Your task to perform on an android device: Open the web browser Image 0: 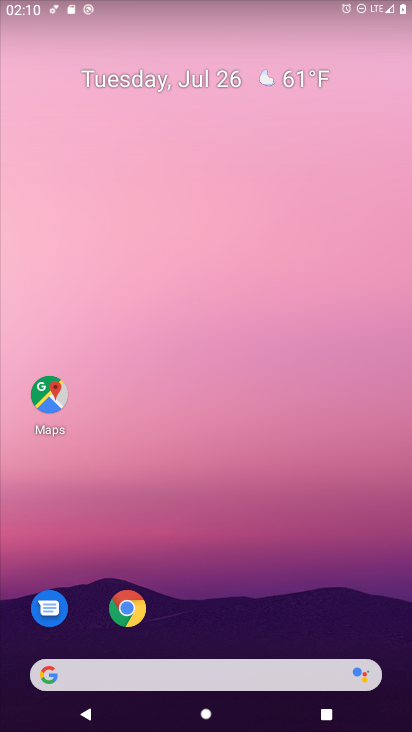
Step 0: drag from (34, 636) to (305, 134)
Your task to perform on an android device: Open the web browser Image 1: 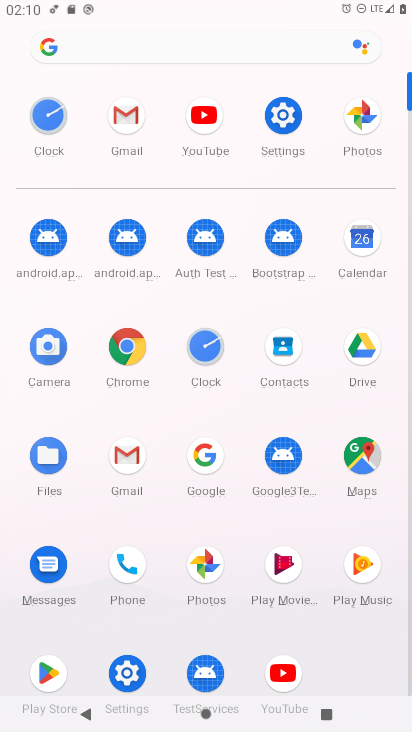
Step 1: click (128, 352)
Your task to perform on an android device: Open the web browser Image 2: 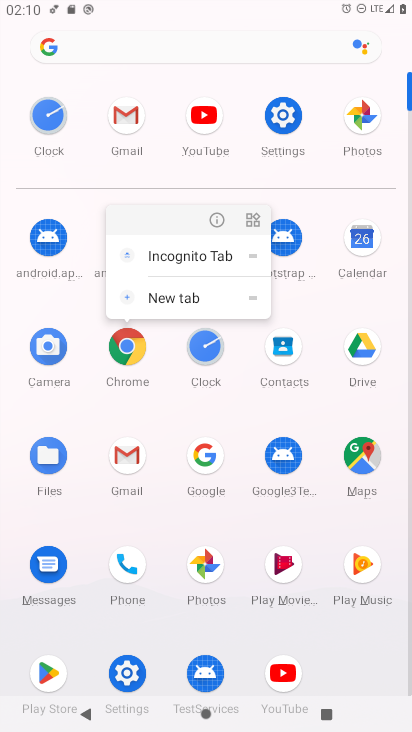
Step 2: click (128, 350)
Your task to perform on an android device: Open the web browser Image 3: 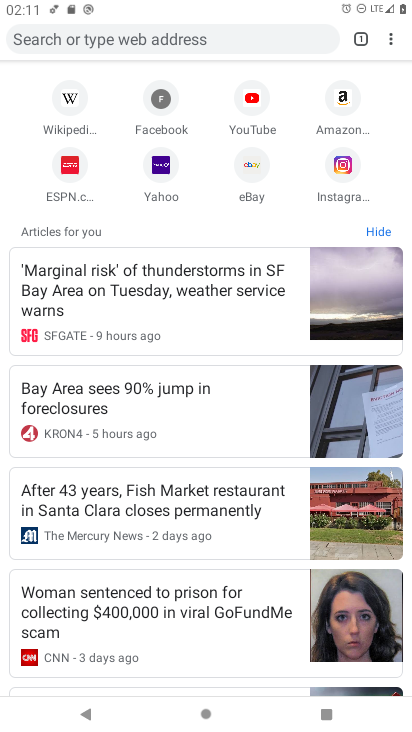
Step 3: task complete